Your task to perform on an android device: set the timer Image 0: 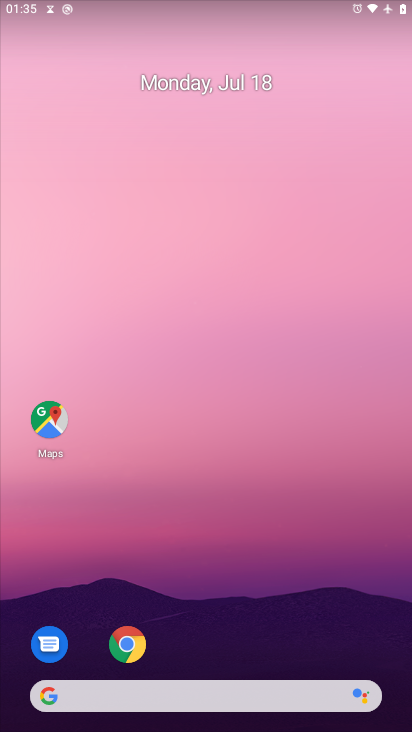
Step 0: drag from (286, 548) to (350, 5)
Your task to perform on an android device: set the timer Image 1: 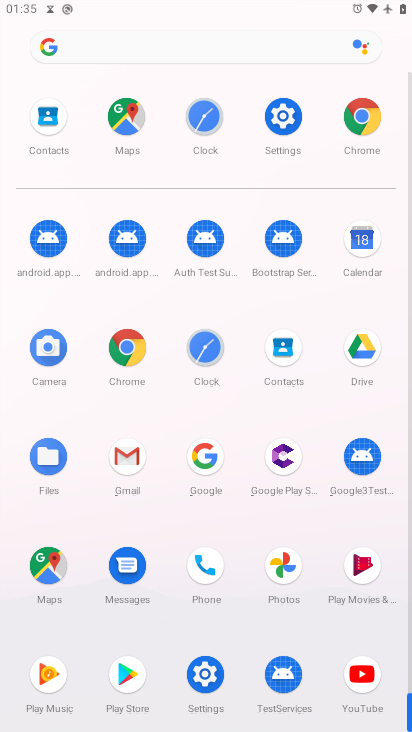
Step 1: click (198, 113)
Your task to perform on an android device: set the timer Image 2: 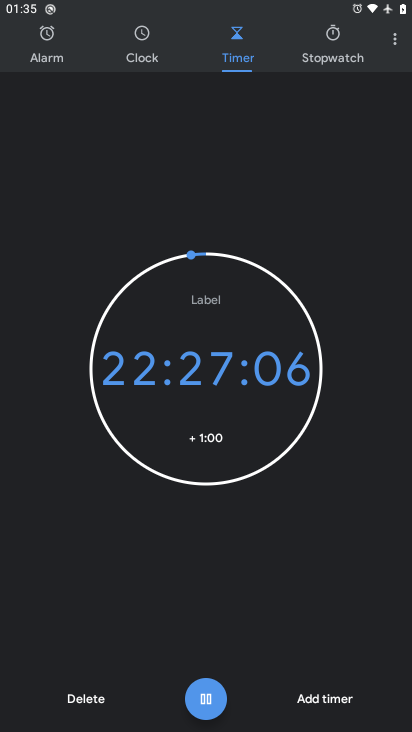
Step 2: task complete